Your task to perform on an android device: turn off location history Image 0: 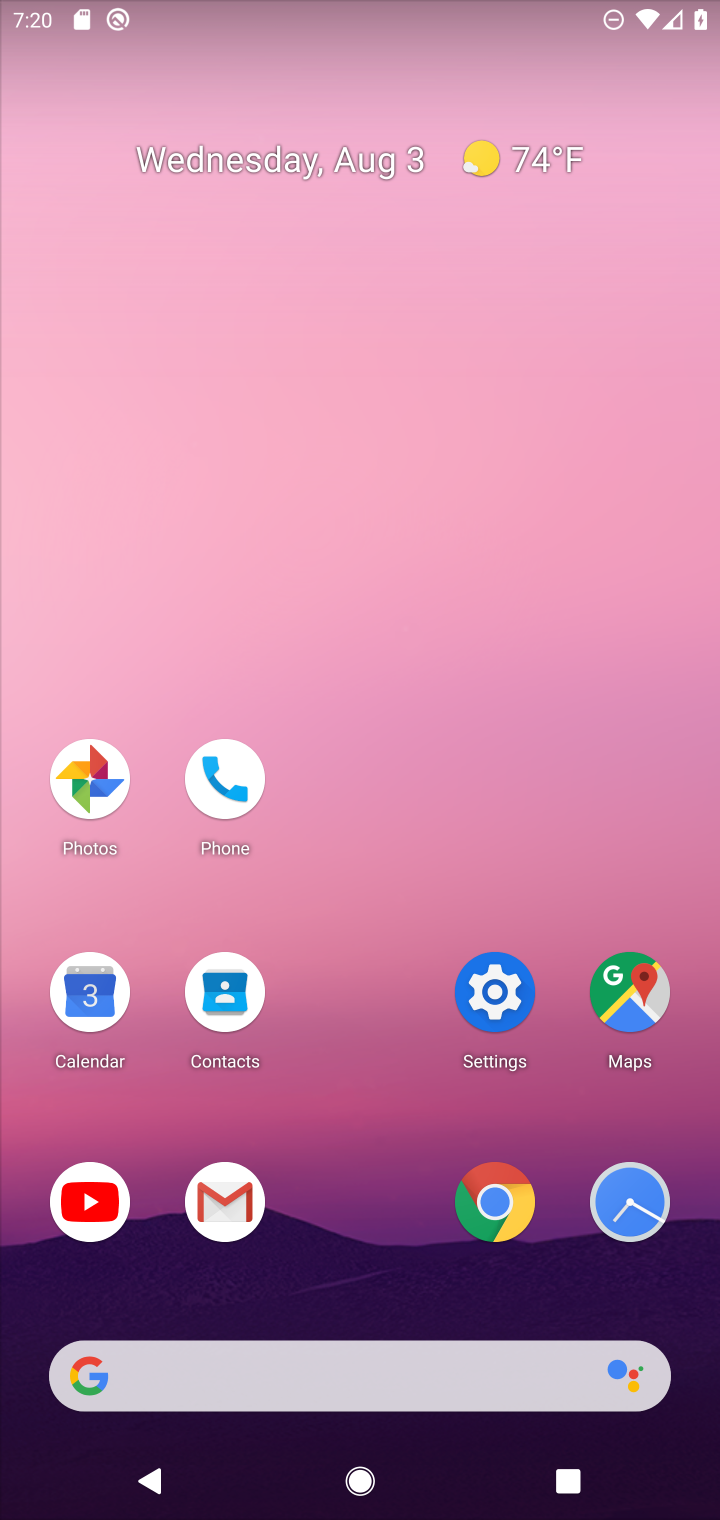
Step 0: click (483, 983)
Your task to perform on an android device: turn off location history Image 1: 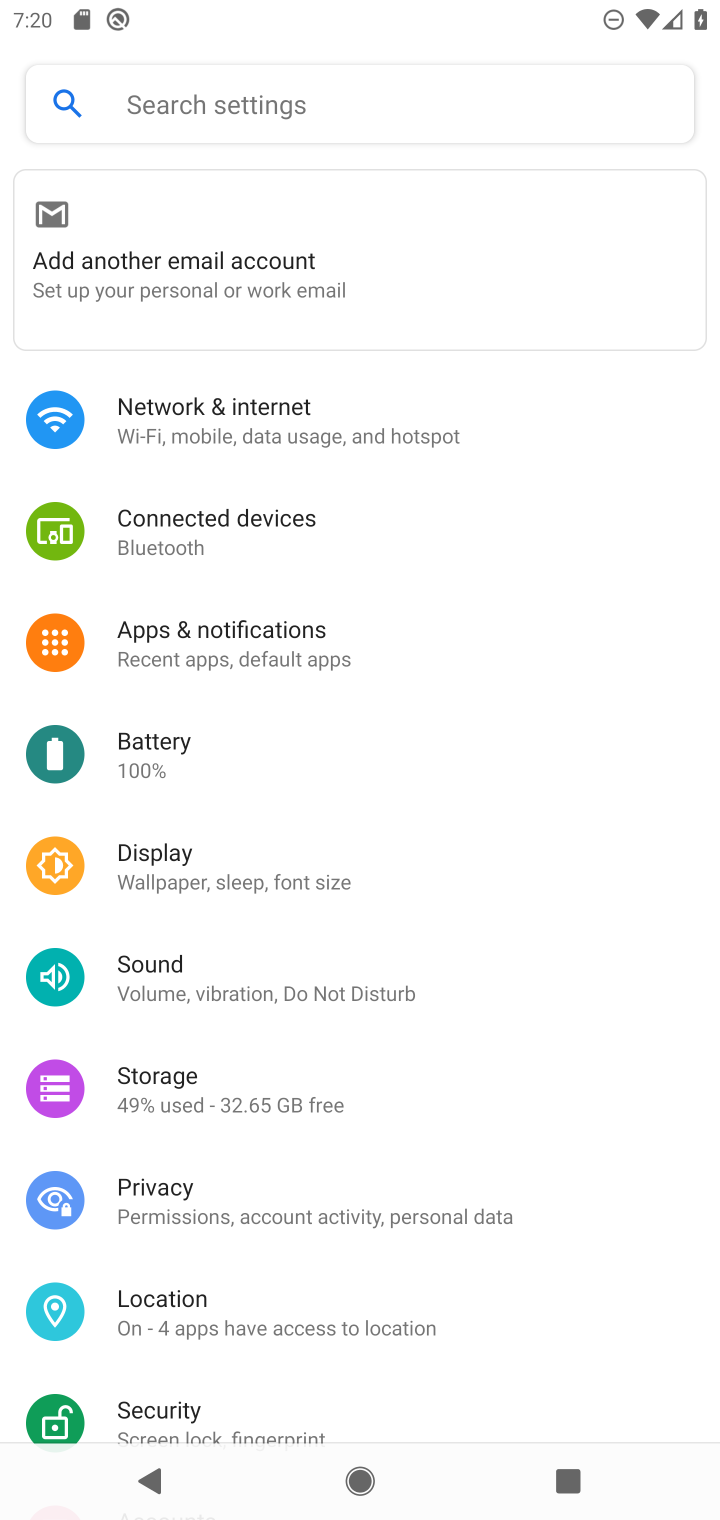
Step 1: click (166, 1306)
Your task to perform on an android device: turn off location history Image 2: 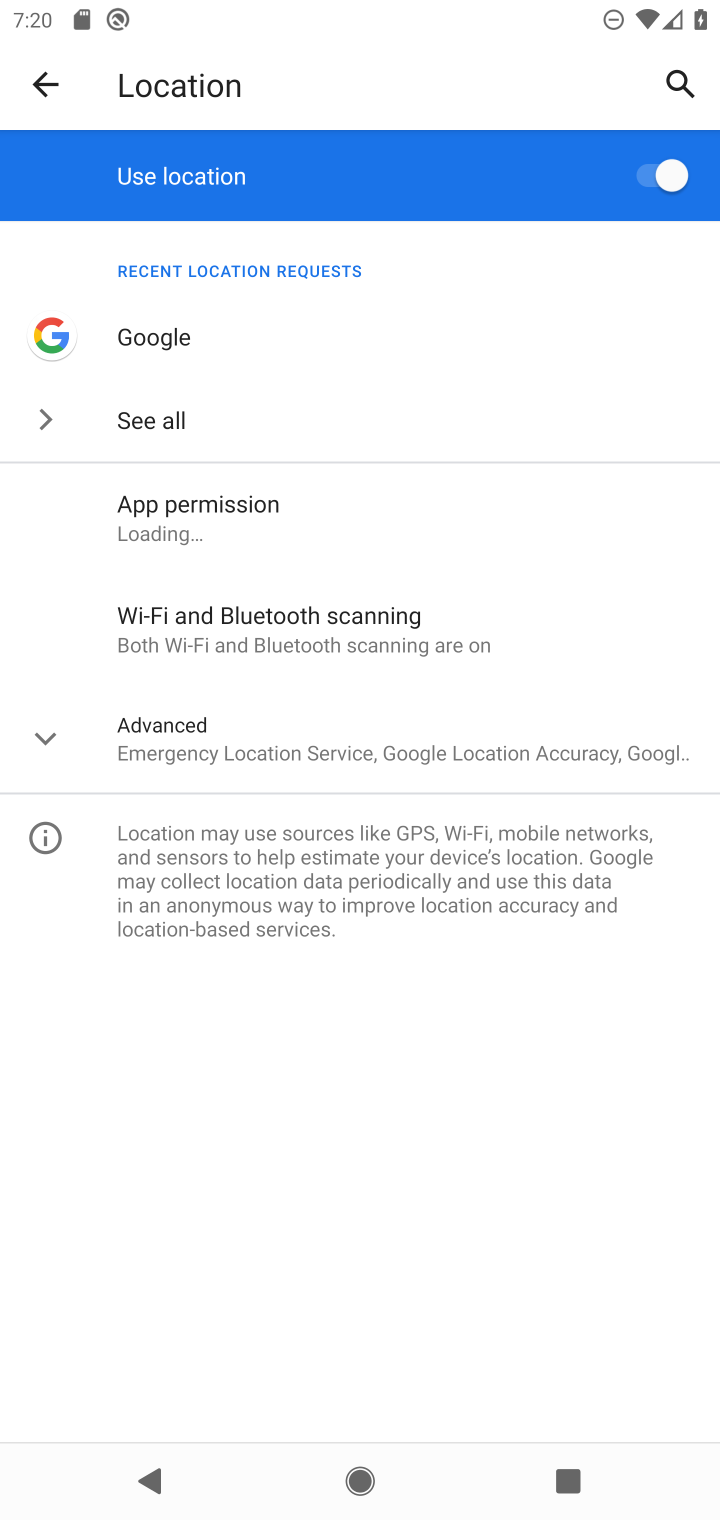
Step 2: click (48, 743)
Your task to perform on an android device: turn off location history Image 3: 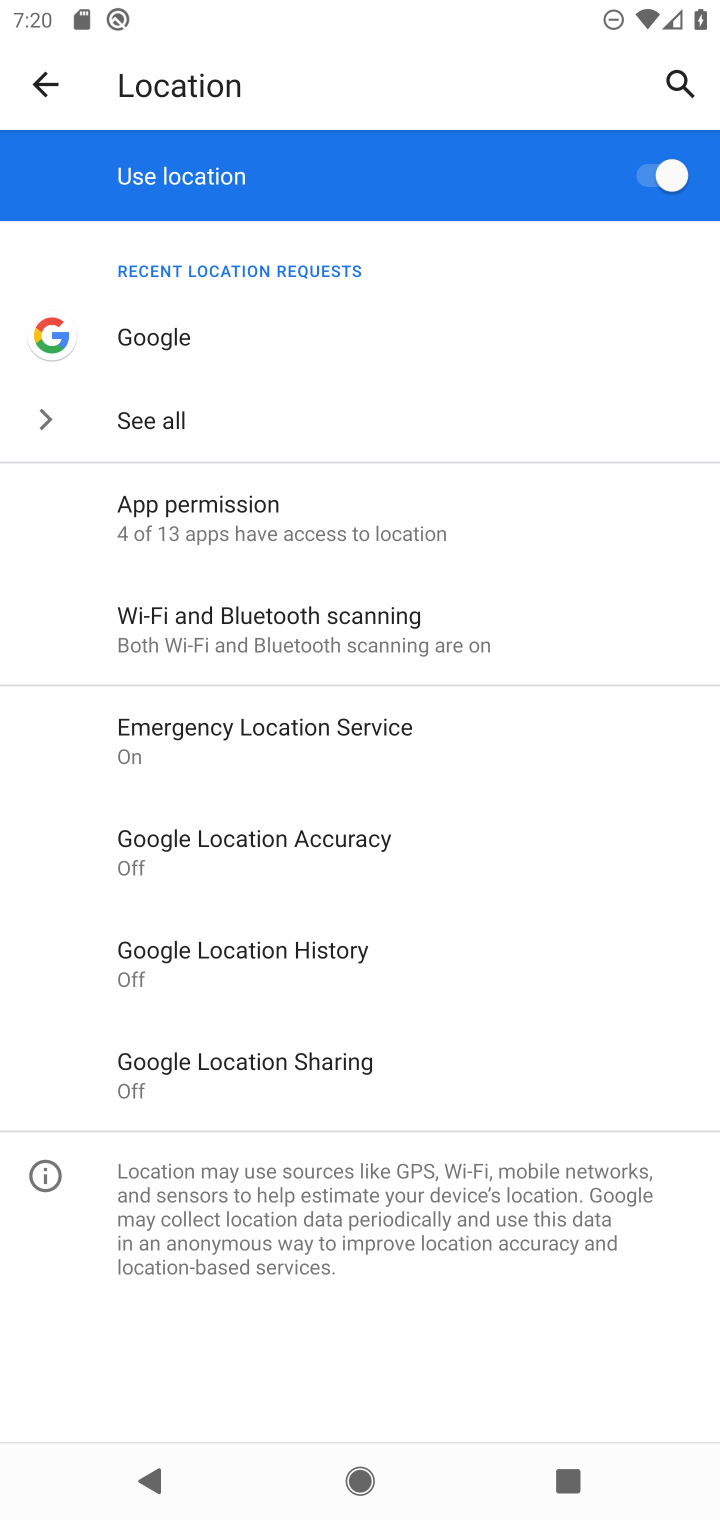
Step 3: click (240, 952)
Your task to perform on an android device: turn off location history Image 4: 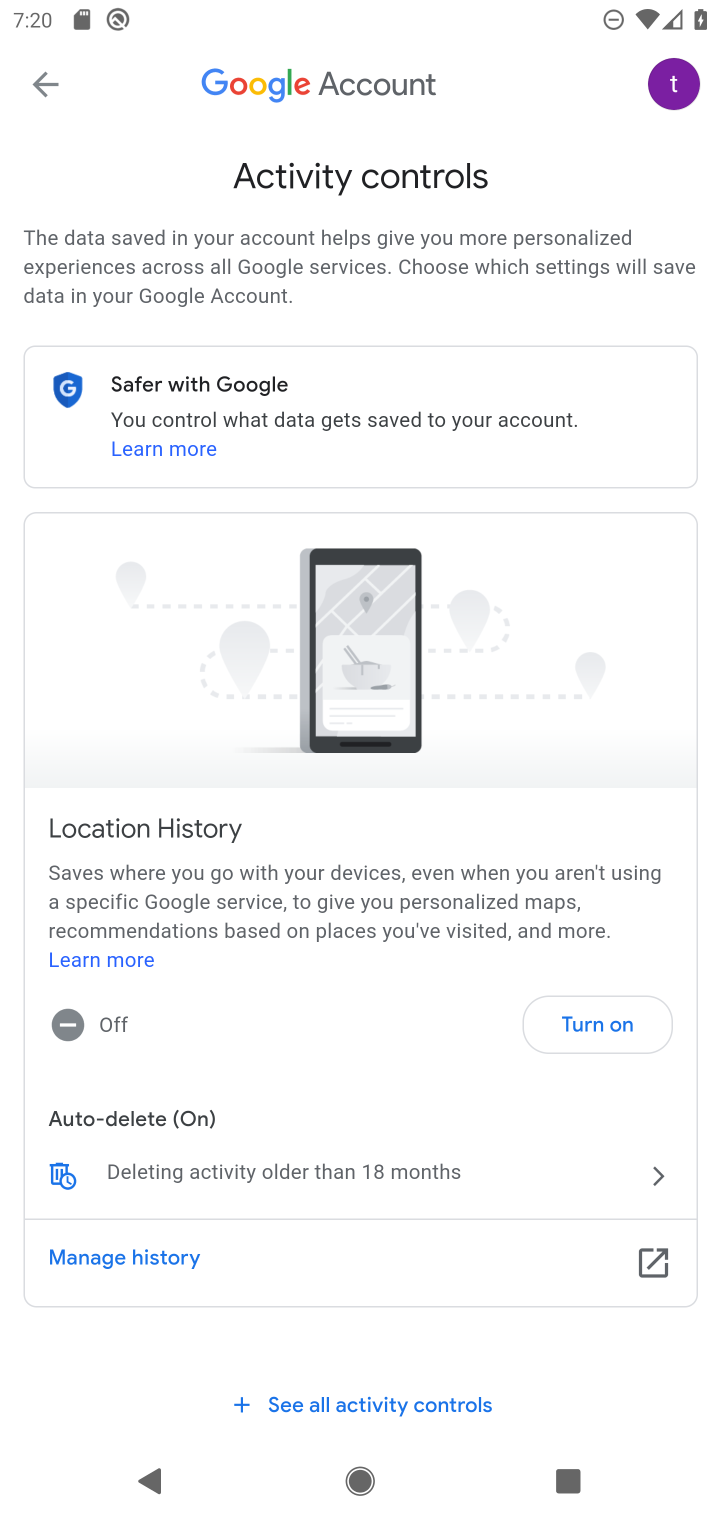
Step 4: task complete